Your task to perform on an android device: Open settings on Google Maps Image 0: 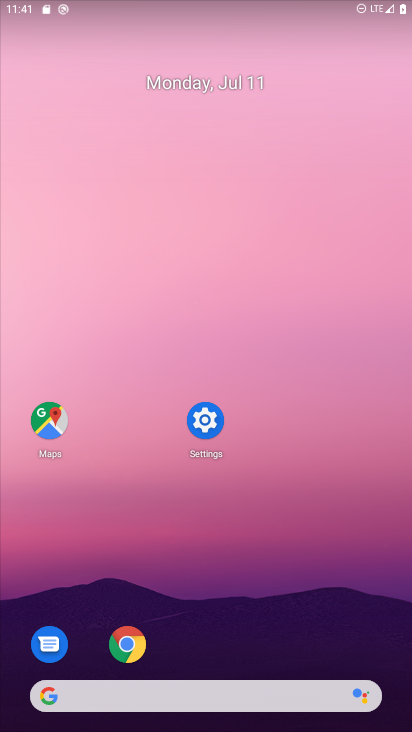
Step 0: click (51, 409)
Your task to perform on an android device: Open settings on Google Maps Image 1: 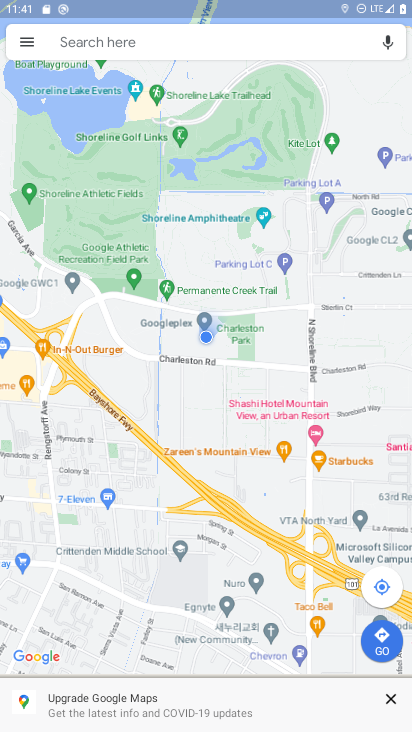
Step 1: click (16, 35)
Your task to perform on an android device: Open settings on Google Maps Image 2: 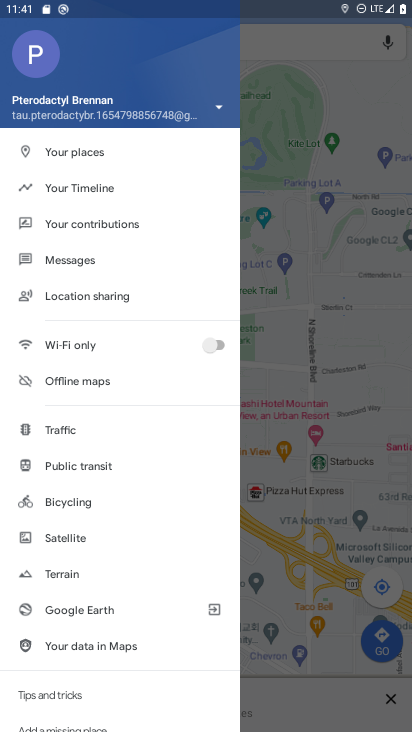
Step 2: click (123, 354)
Your task to perform on an android device: Open settings on Google Maps Image 3: 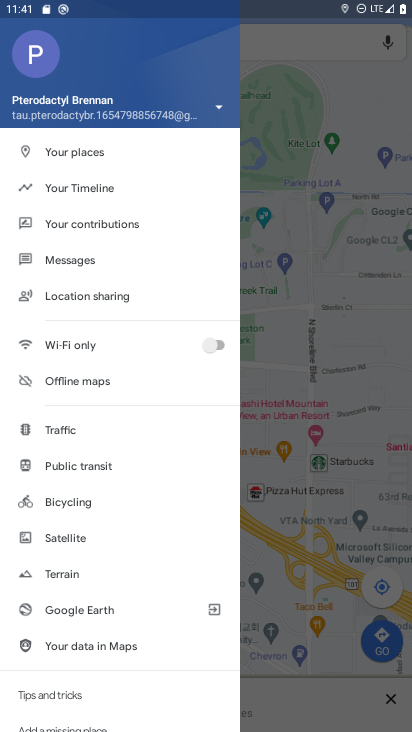
Step 3: drag from (167, 517) to (115, 201)
Your task to perform on an android device: Open settings on Google Maps Image 4: 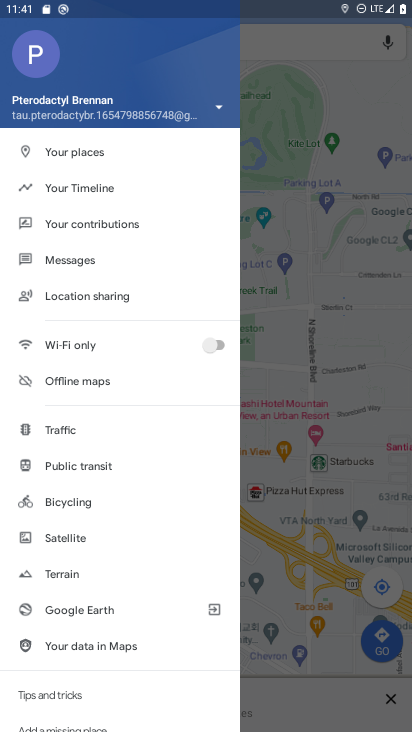
Step 4: drag from (164, 647) to (158, 231)
Your task to perform on an android device: Open settings on Google Maps Image 5: 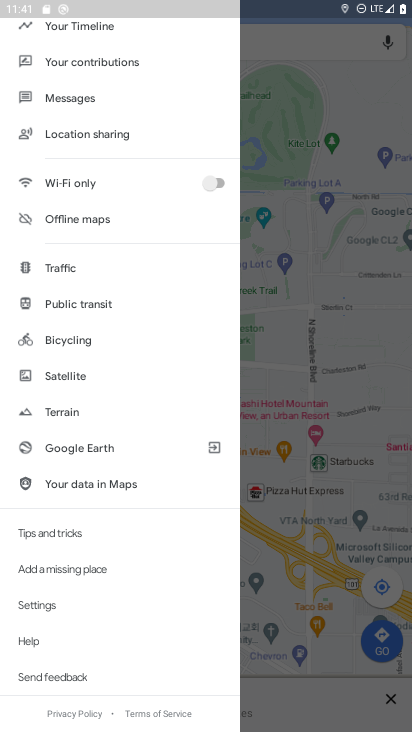
Step 5: click (40, 600)
Your task to perform on an android device: Open settings on Google Maps Image 6: 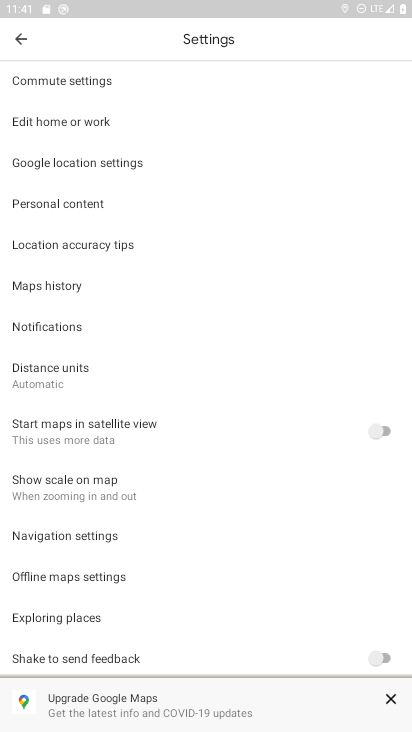
Step 6: task complete